Your task to perform on an android device: turn on the 24-hour format for clock Image 0: 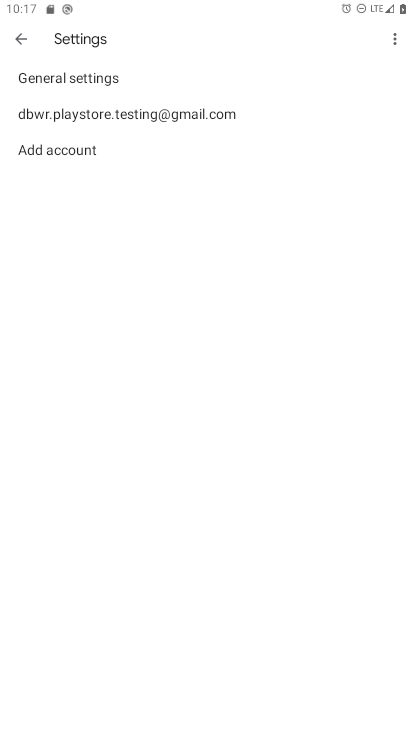
Step 0: press home button
Your task to perform on an android device: turn on the 24-hour format for clock Image 1: 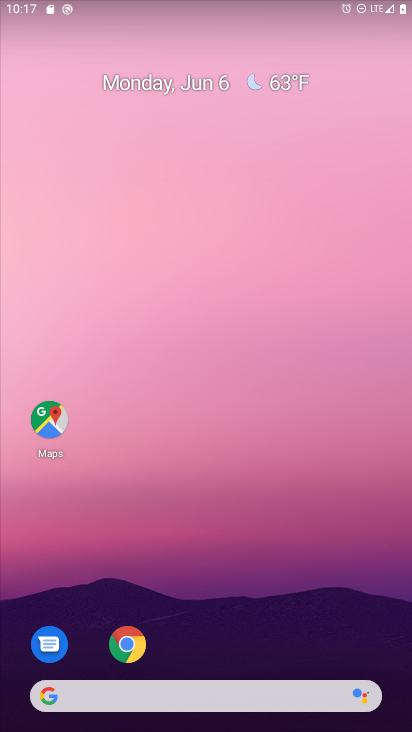
Step 1: drag from (213, 723) to (236, 168)
Your task to perform on an android device: turn on the 24-hour format for clock Image 2: 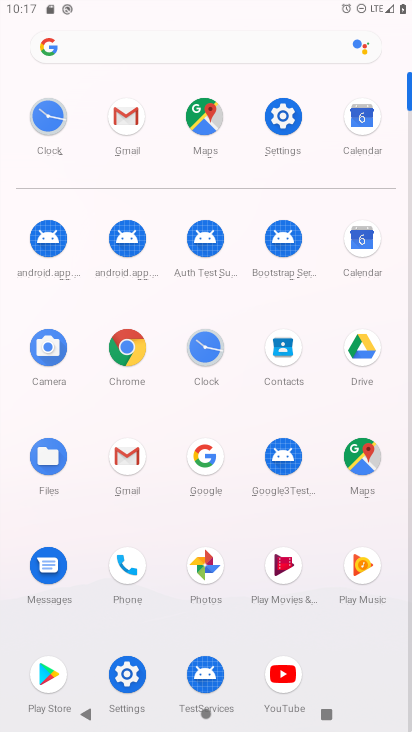
Step 2: click (212, 349)
Your task to perform on an android device: turn on the 24-hour format for clock Image 3: 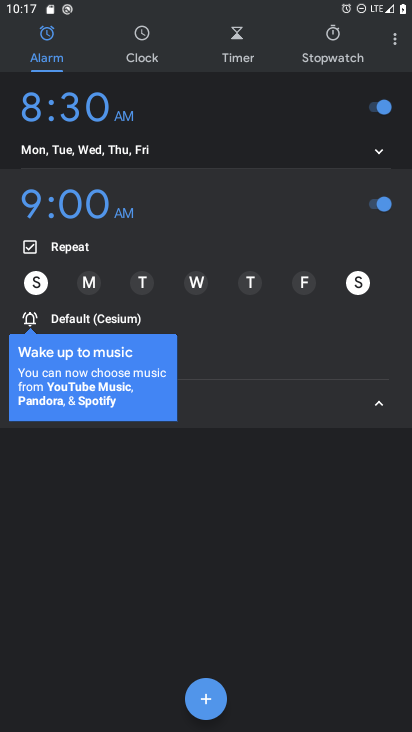
Step 3: click (383, 41)
Your task to perform on an android device: turn on the 24-hour format for clock Image 4: 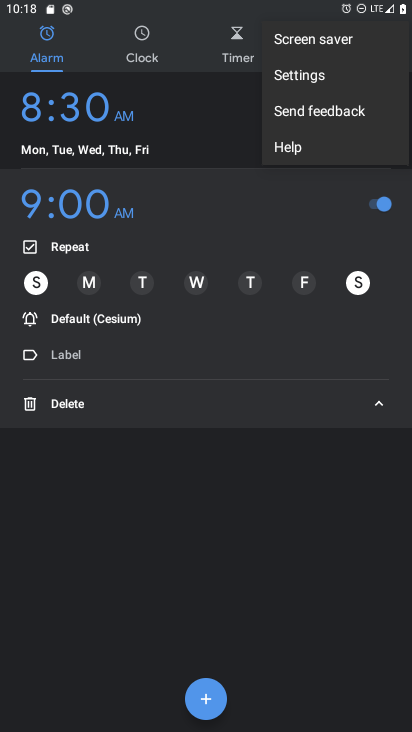
Step 4: click (296, 73)
Your task to perform on an android device: turn on the 24-hour format for clock Image 5: 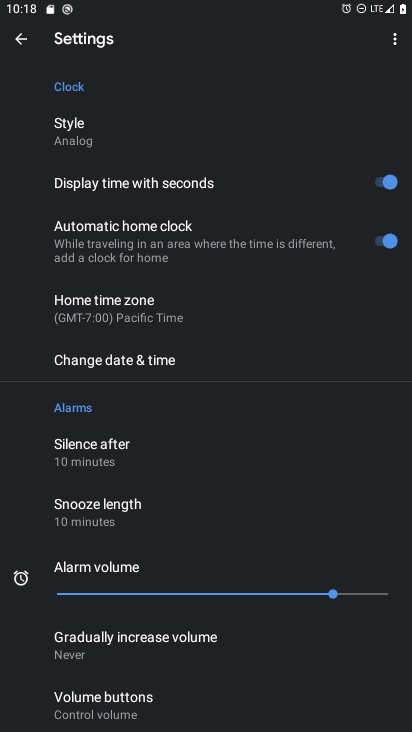
Step 5: click (162, 358)
Your task to perform on an android device: turn on the 24-hour format for clock Image 6: 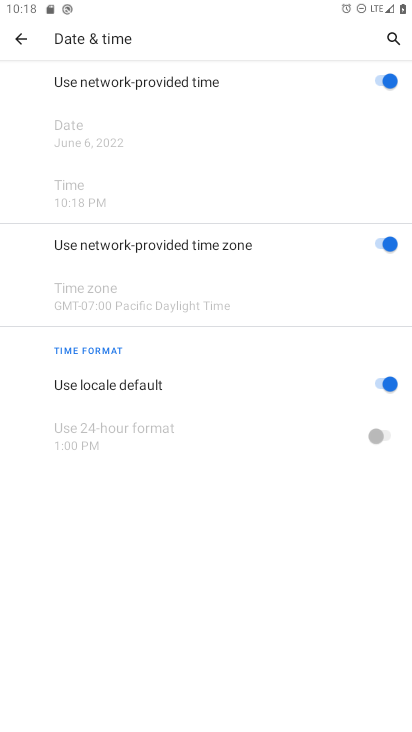
Step 6: click (370, 384)
Your task to perform on an android device: turn on the 24-hour format for clock Image 7: 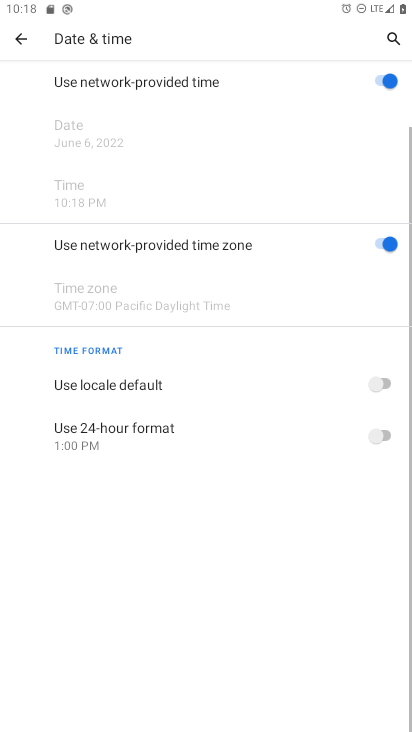
Step 7: click (375, 435)
Your task to perform on an android device: turn on the 24-hour format for clock Image 8: 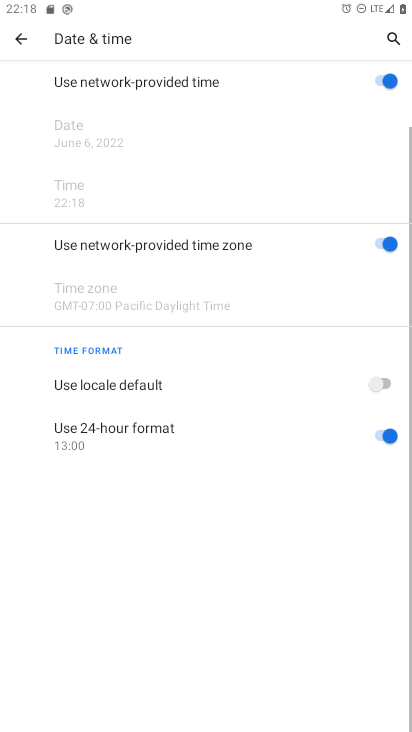
Step 8: task complete